Your task to perform on an android device: turn off translation in the chrome app Image 0: 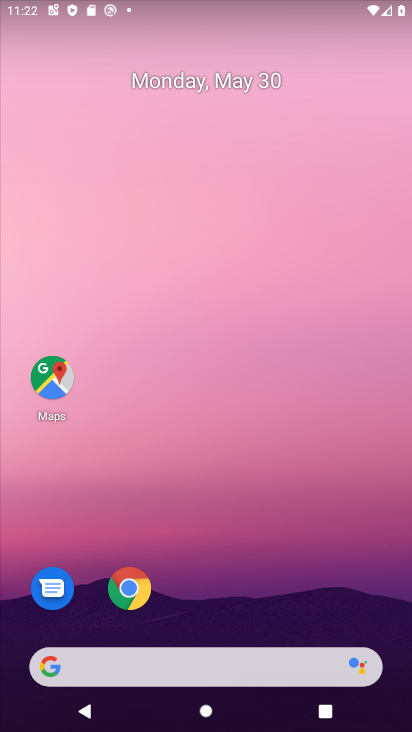
Step 0: click (127, 591)
Your task to perform on an android device: turn off translation in the chrome app Image 1: 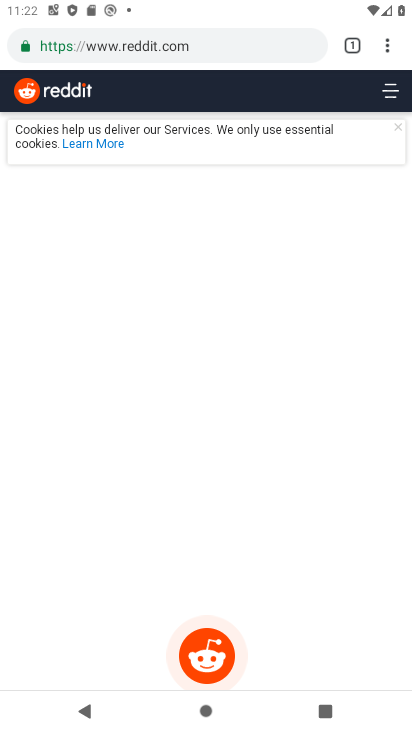
Step 1: click (387, 40)
Your task to perform on an android device: turn off translation in the chrome app Image 2: 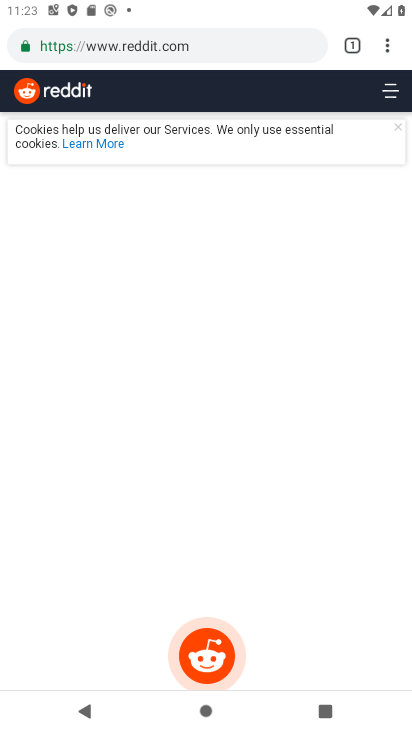
Step 2: click (392, 44)
Your task to perform on an android device: turn off translation in the chrome app Image 3: 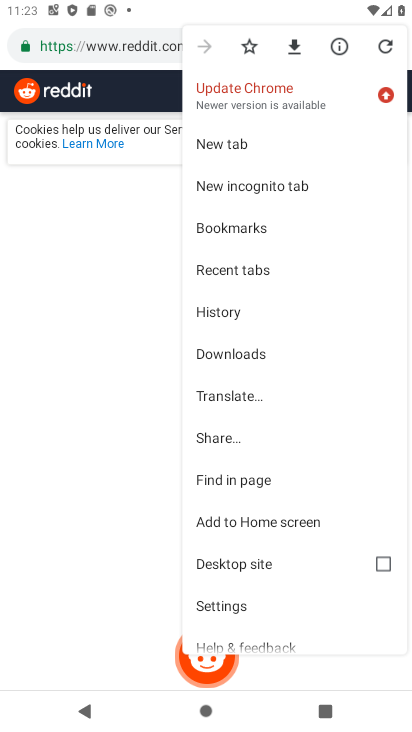
Step 3: click (266, 602)
Your task to perform on an android device: turn off translation in the chrome app Image 4: 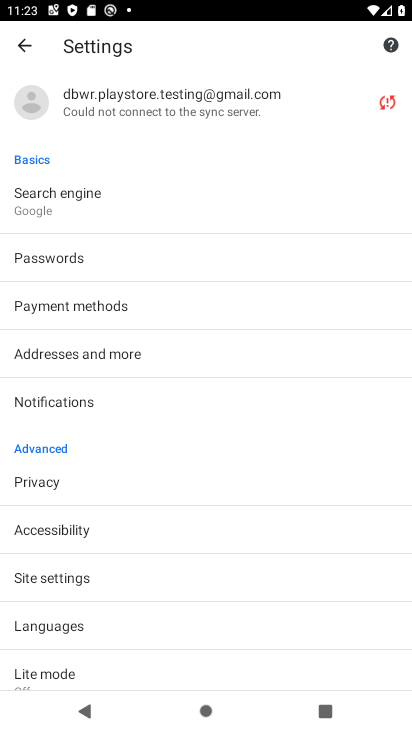
Step 4: click (107, 625)
Your task to perform on an android device: turn off translation in the chrome app Image 5: 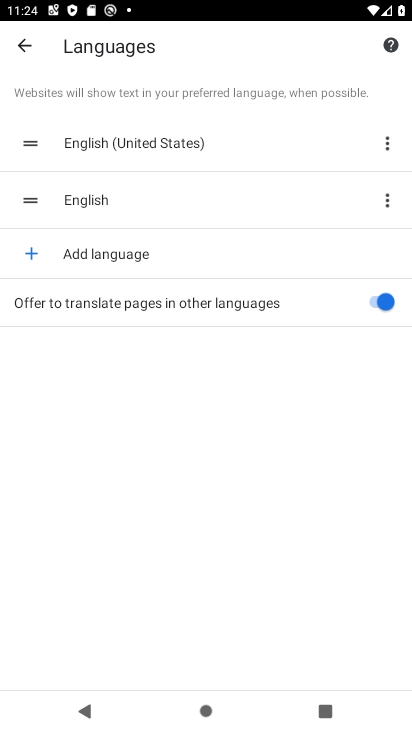
Step 5: click (376, 293)
Your task to perform on an android device: turn off translation in the chrome app Image 6: 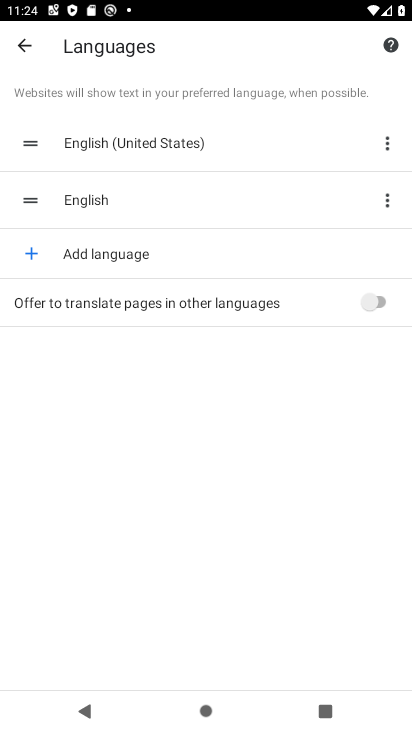
Step 6: task complete